Your task to perform on an android device: turn off data saver in the chrome app Image 0: 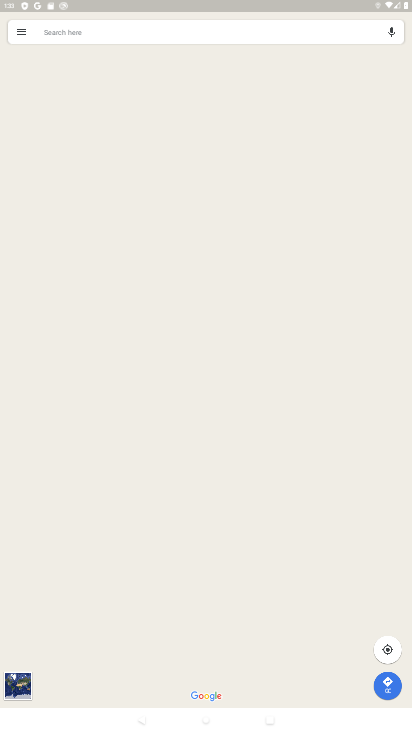
Step 0: press home button
Your task to perform on an android device: turn off data saver in the chrome app Image 1: 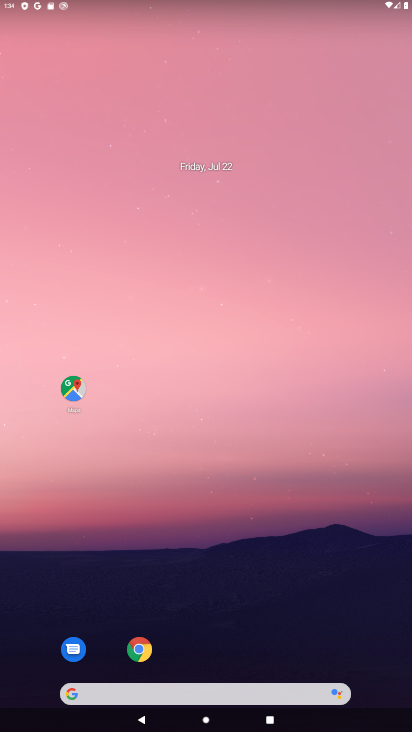
Step 1: click (142, 643)
Your task to perform on an android device: turn off data saver in the chrome app Image 2: 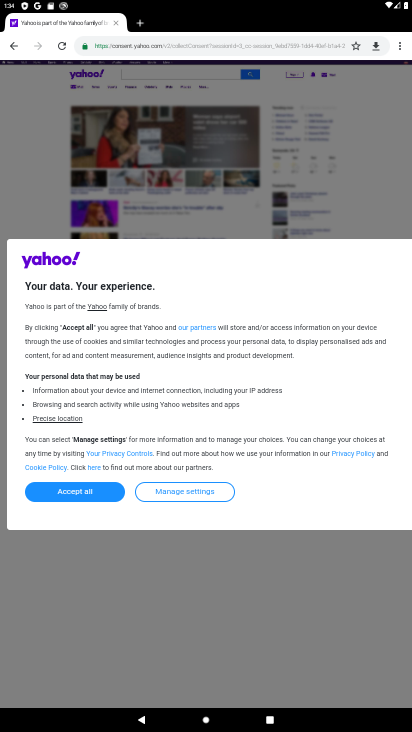
Step 2: click (402, 50)
Your task to perform on an android device: turn off data saver in the chrome app Image 3: 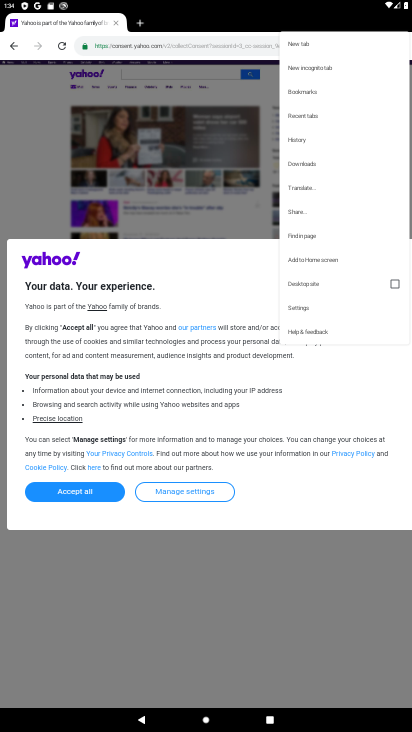
Step 3: click (311, 308)
Your task to perform on an android device: turn off data saver in the chrome app Image 4: 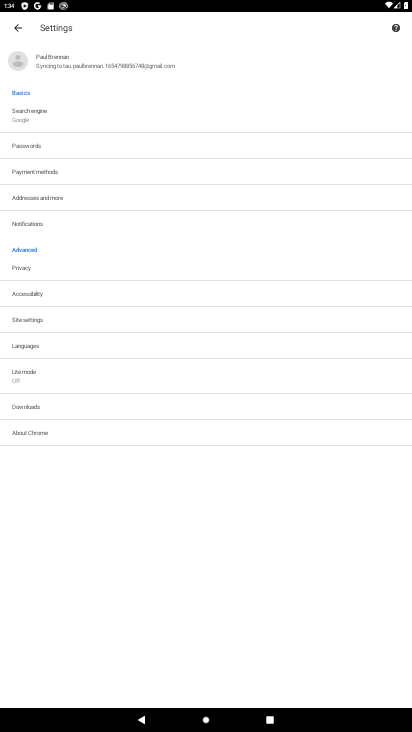
Step 4: click (32, 376)
Your task to perform on an android device: turn off data saver in the chrome app Image 5: 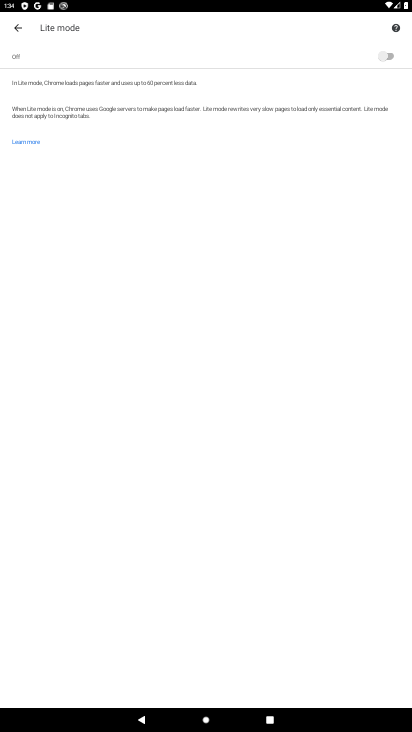
Step 5: task complete